Your task to perform on an android device: Open calendar and show me the third week of next month Image 0: 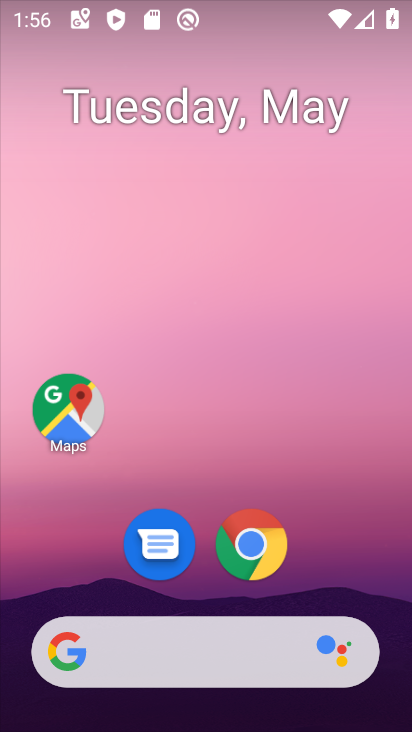
Step 0: drag from (339, 507) to (400, 136)
Your task to perform on an android device: Open calendar and show me the third week of next month Image 1: 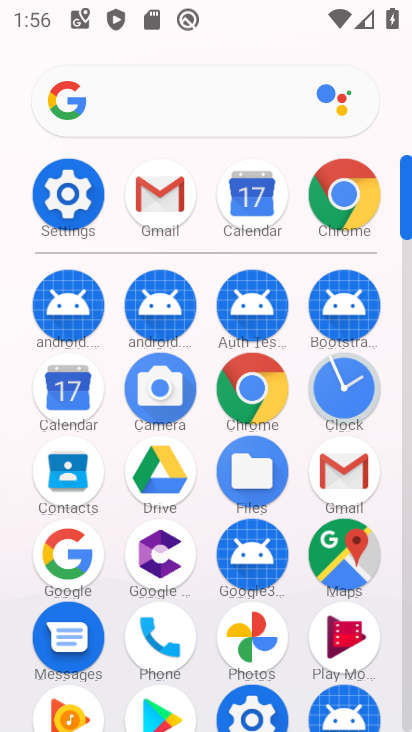
Step 1: click (252, 195)
Your task to perform on an android device: Open calendar and show me the third week of next month Image 2: 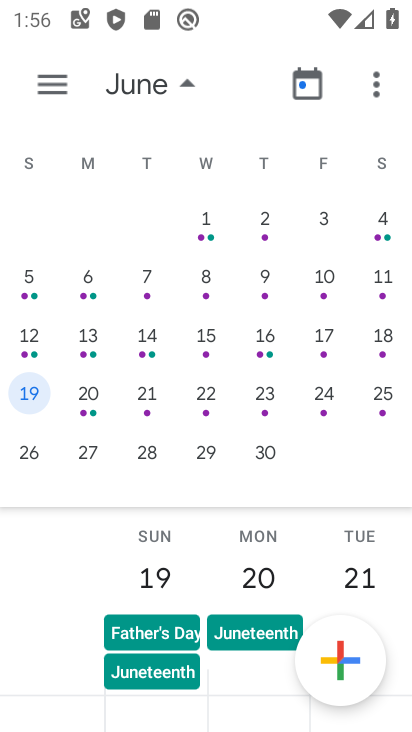
Step 2: click (26, 381)
Your task to perform on an android device: Open calendar and show me the third week of next month Image 3: 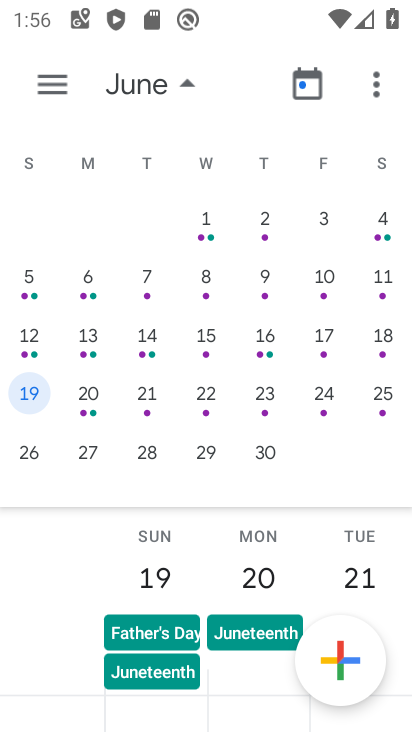
Step 3: click (46, 78)
Your task to perform on an android device: Open calendar and show me the third week of next month Image 4: 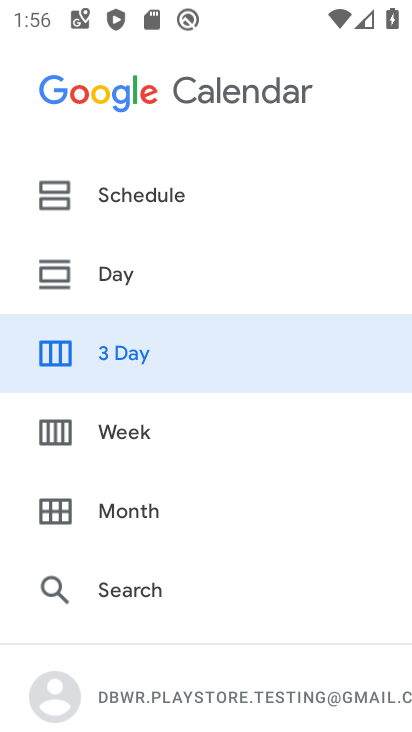
Step 4: click (149, 420)
Your task to perform on an android device: Open calendar and show me the third week of next month Image 5: 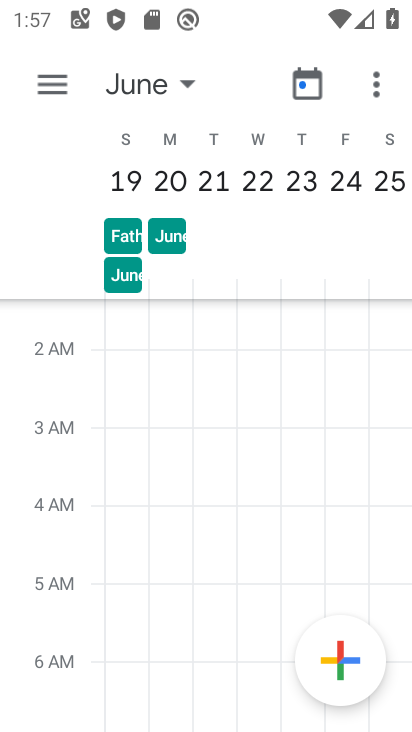
Step 5: task complete